Your task to perform on an android device: Clear the cart on ebay. Search for acer predator on ebay, select the first entry, add it to the cart, then select checkout. Image 0: 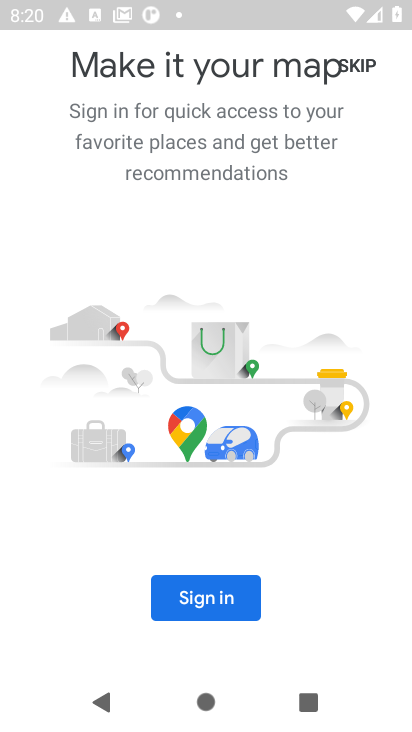
Step 0: press home button
Your task to perform on an android device: Clear the cart on ebay. Search for acer predator on ebay, select the first entry, add it to the cart, then select checkout. Image 1: 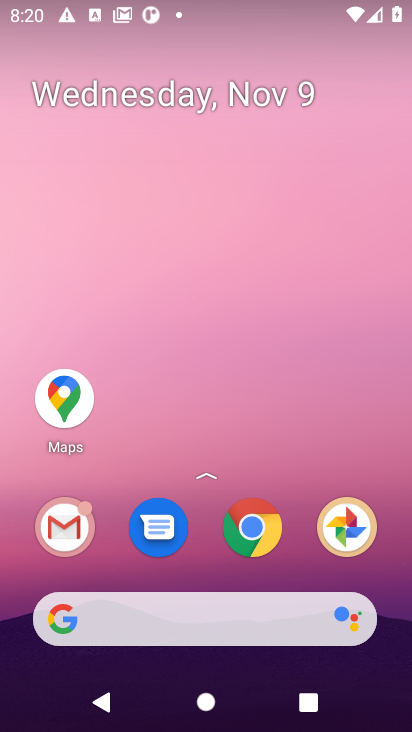
Step 1: click (253, 517)
Your task to perform on an android device: Clear the cart on ebay. Search for acer predator on ebay, select the first entry, add it to the cart, then select checkout. Image 2: 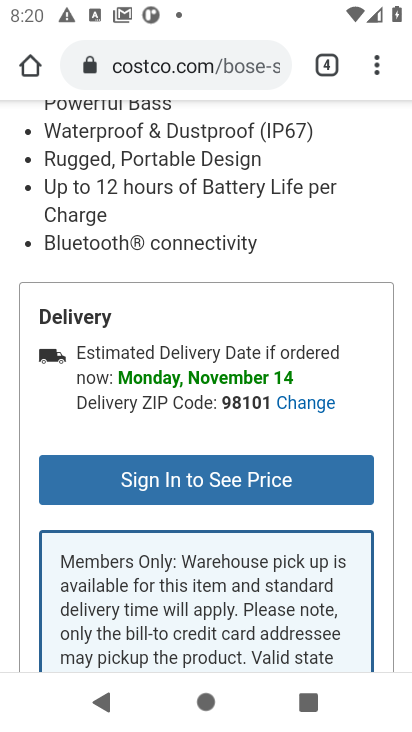
Step 2: click (167, 70)
Your task to perform on an android device: Clear the cart on ebay. Search for acer predator on ebay, select the first entry, add it to the cart, then select checkout. Image 3: 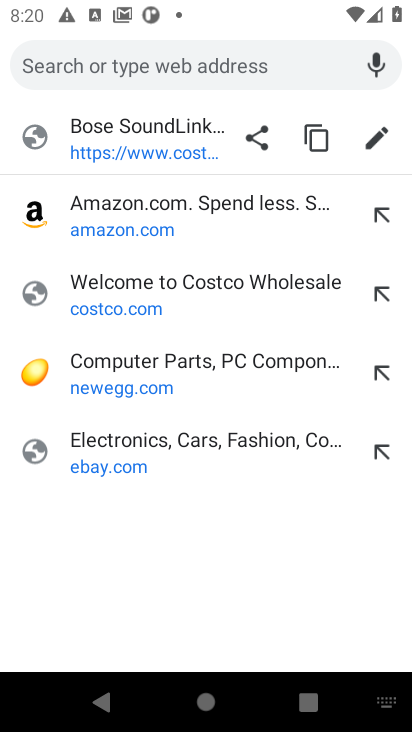
Step 3: click (96, 438)
Your task to perform on an android device: Clear the cart on ebay. Search for acer predator on ebay, select the first entry, add it to the cart, then select checkout. Image 4: 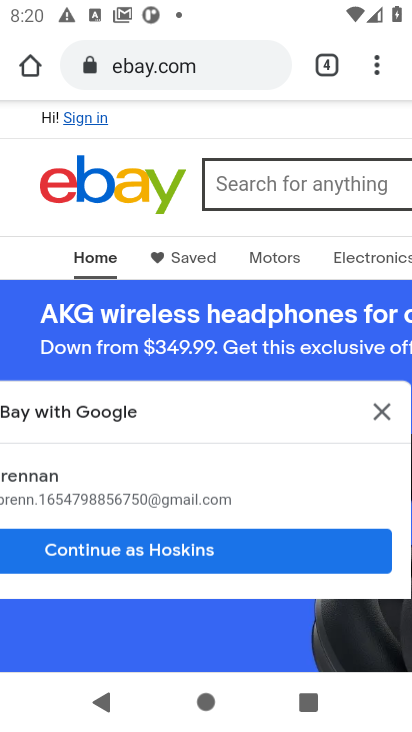
Step 4: drag from (296, 139) to (0, 152)
Your task to perform on an android device: Clear the cart on ebay. Search for acer predator on ebay, select the first entry, add it to the cart, then select checkout. Image 5: 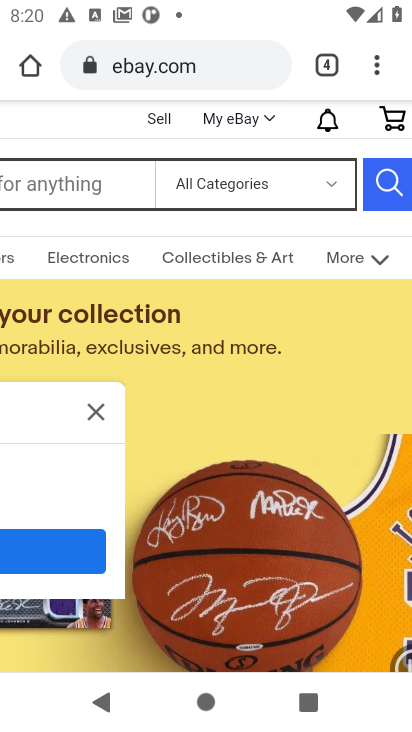
Step 5: click (390, 123)
Your task to perform on an android device: Clear the cart on ebay. Search for acer predator on ebay, select the first entry, add it to the cart, then select checkout. Image 6: 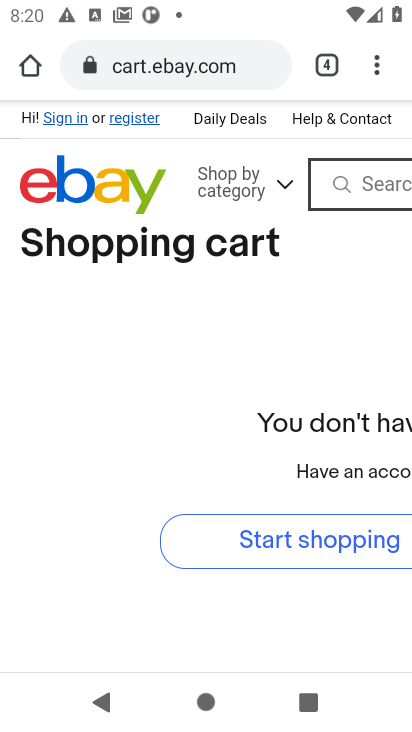
Step 6: click (364, 192)
Your task to perform on an android device: Clear the cart on ebay. Search for acer predator on ebay, select the first entry, add it to the cart, then select checkout. Image 7: 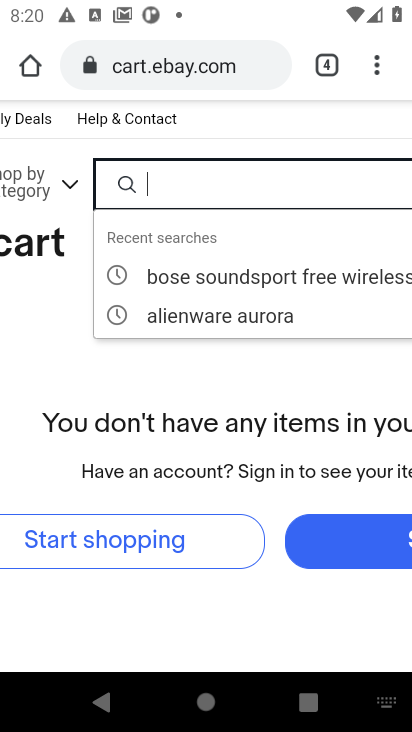
Step 7: type "acer predator"
Your task to perform on an android device: Clear the cart on ebay. Search for acer predator on ebay, select the first entry, add it to the cart, then select checkout. Image 8: 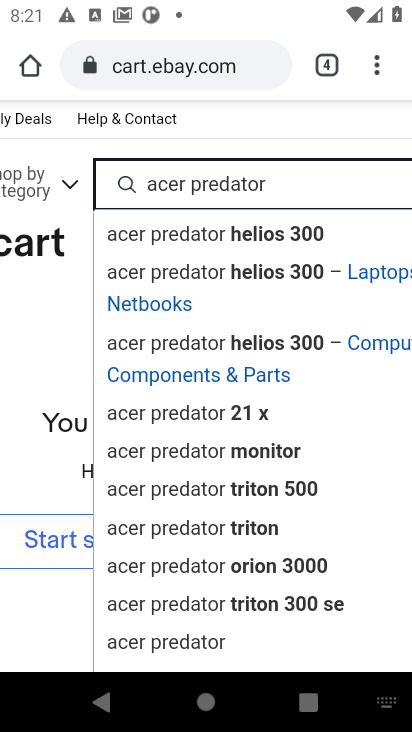
Step 8: drag from (184, 523) to (184, 376)
Your task to perform on an android device: Clear the cart on ebay. Search for acer predator on ebay, select the first entry, add it to the cart, then select checkout. Image 9: 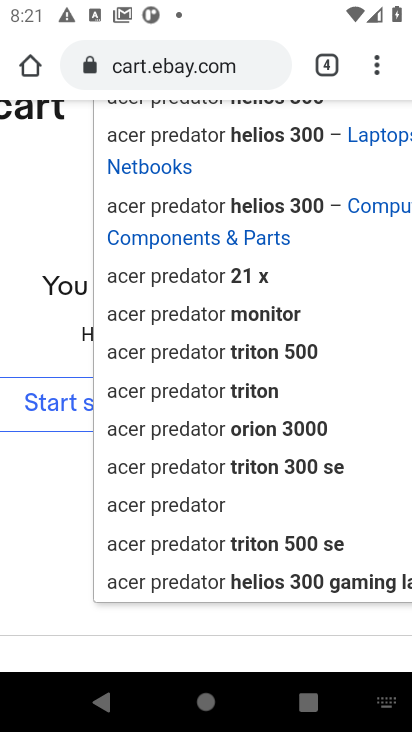
Step 9: click (168, 512)
Your task to perform on an android device: Clear the cart on ebay. Search for acer predator on ebay, select the first entry, add it to the cart, then select checkout. Image 10: 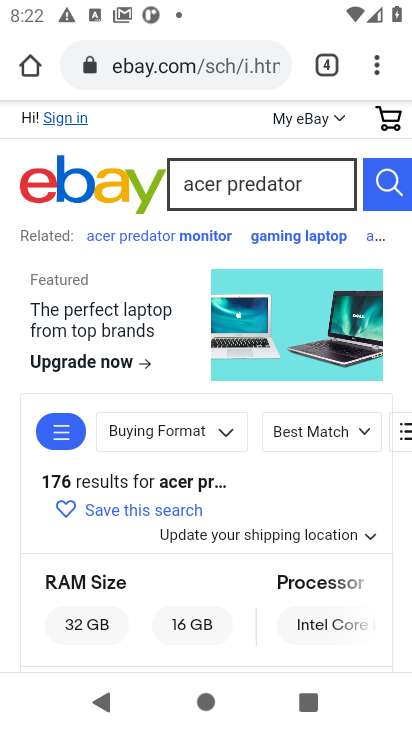
Step 10: drag from (233, 568) to (225, 320)
Your task to perform on an android device: Clear the cart on ebay. Search for acer predator on ebay, select the first entry, add it to the cart, then select checkout. Image 11: 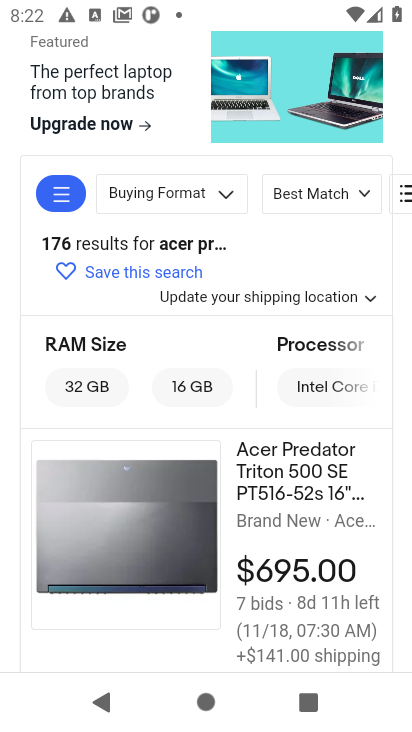
Step 11: drag from (174, 506) to (173, 327)
Your task to perform on an android device: Clear the cart on ebay. Search for acer predator on ebay, select the first entry, add it to the cart, then select checkout. Image 12: 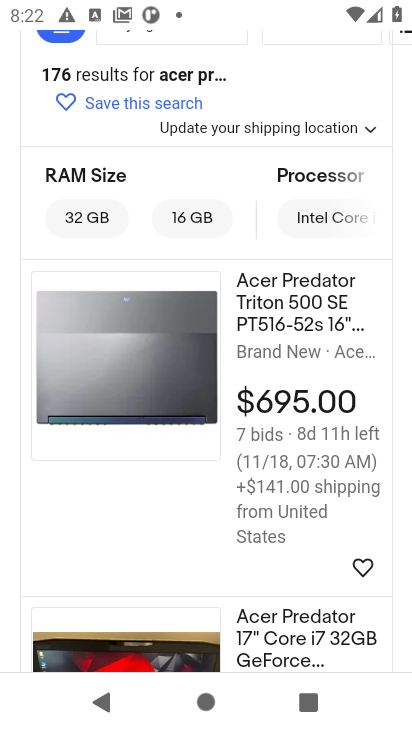
Step 12: click (303, 428)
Your task to perform on an android device: Clear the cart on ebay. Search for acer predator on ebay, select the first entry, add it to the cart, then select checkout. Image 13: 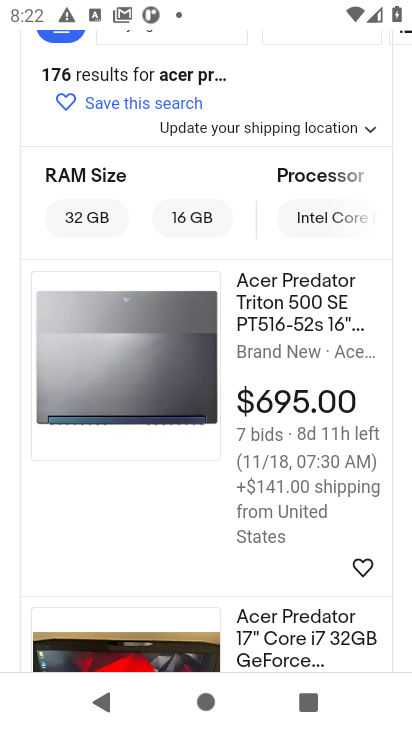
Step 13: click (190, 403)
Your task to perform on an android device: Clear the cart on ebay. Search for acer predator on ebay, select the first entry, add it to the cart, then select checkout. Image 14: 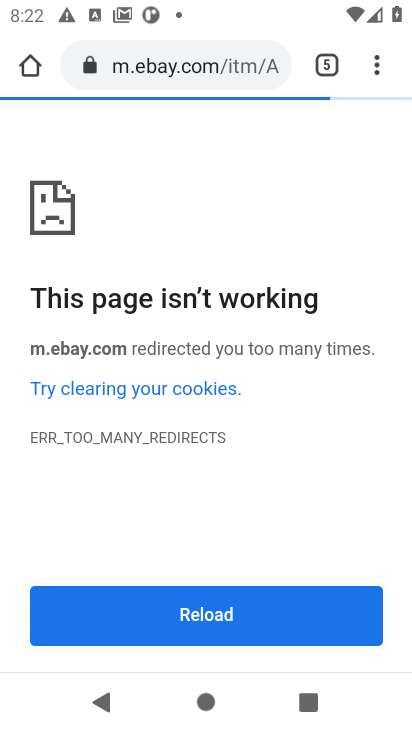
Step 14: task complete